Your task to perform on an android device: refresh tabs in the chrome app Image 0: 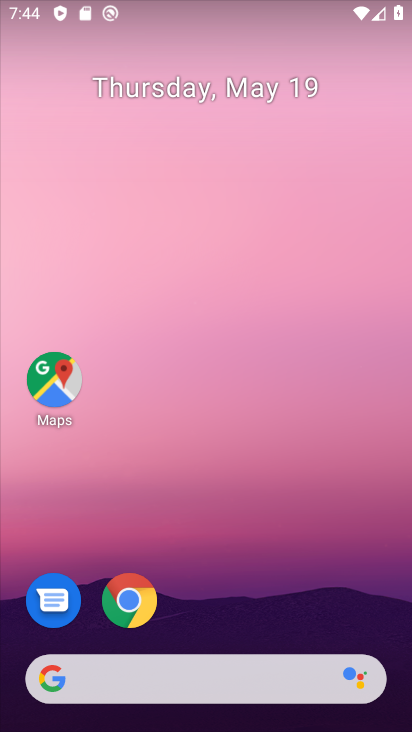
Step 0: drag from (376, 612) to (370, 261)
Your task to perform on an android device: refresh tabs in the chrome app Image 1: 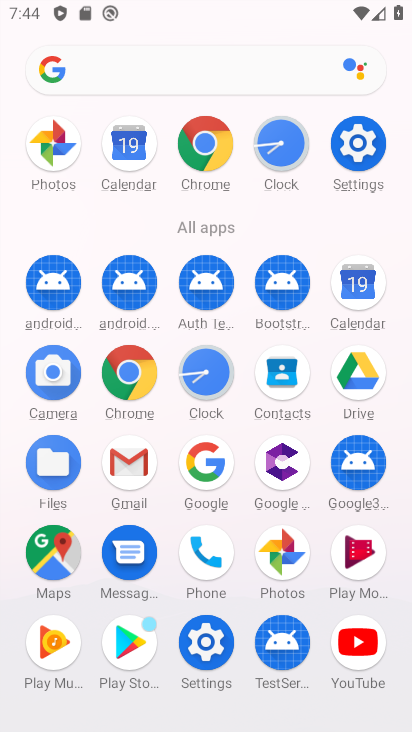
Step 1: click (139, 387)
Your task to perform on an android device: refresh tabs in the chrome app Image 2: 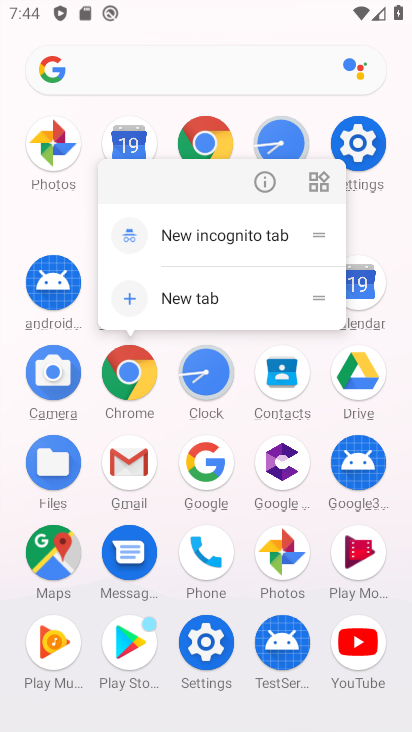
Step 2: click (139, 387)
Your task to perform on an android device: refresh tabs in the chrome app Image 3: 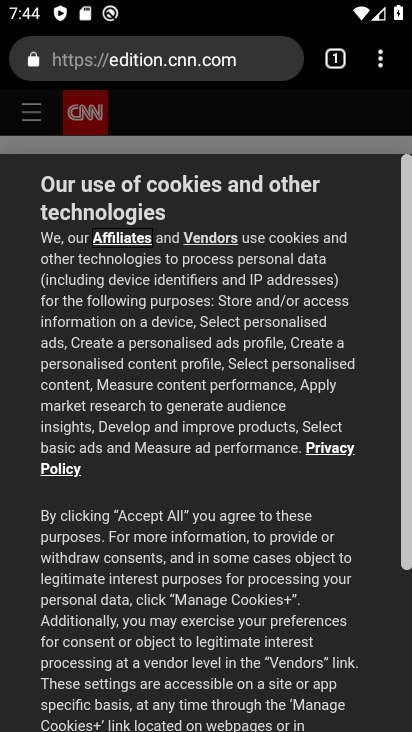
Step 3: click (383, 63)
Your task to perform on an android device: refresh tabs in the chrome app Image 4: 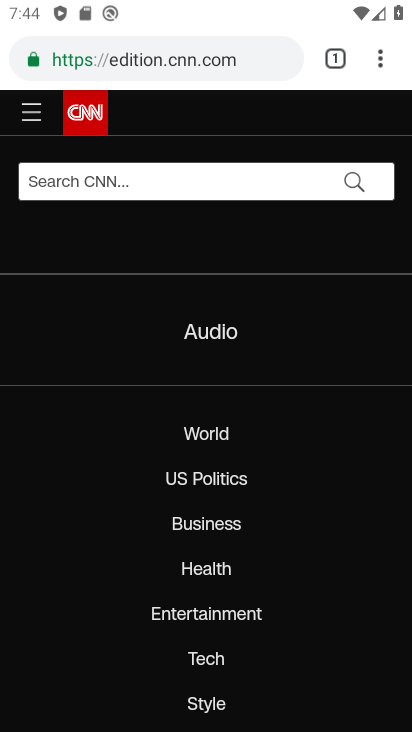
Step 4: task complete